Your task to perform on an android device: Show me recent news Image 0: 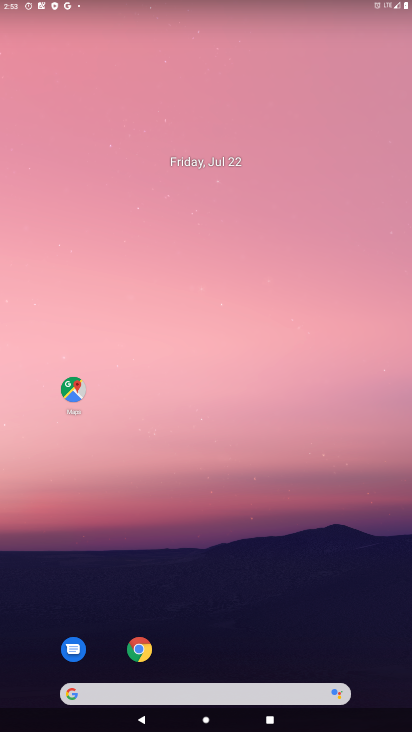
Step 0: drag from (236, 543) to (237, 68)
Your task to perform on an android device: Show me recent news Image 1: 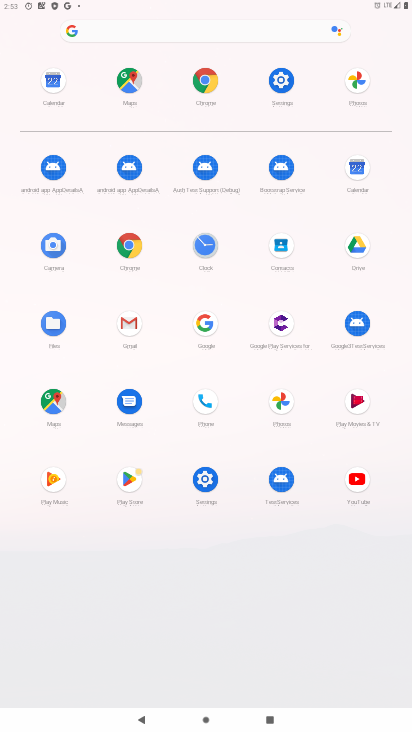
Step 1: click (206, 79)
Your task to perform on an android device: Show me recent news Image 2: 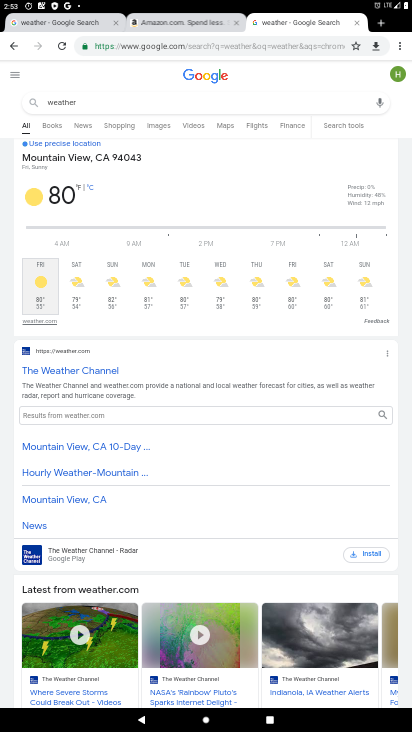
Step 2: click (252, 45)
Your task to perform on an android device: Show me recent news Image 3: 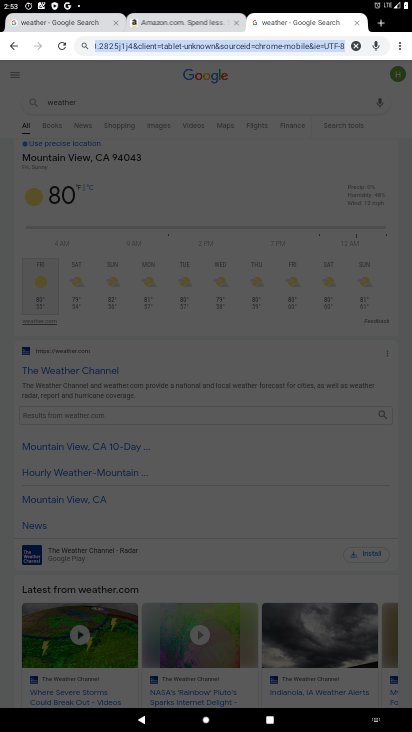
Step 3: type "news"
Your task to perform on an android device: Show me recent news Image 4: 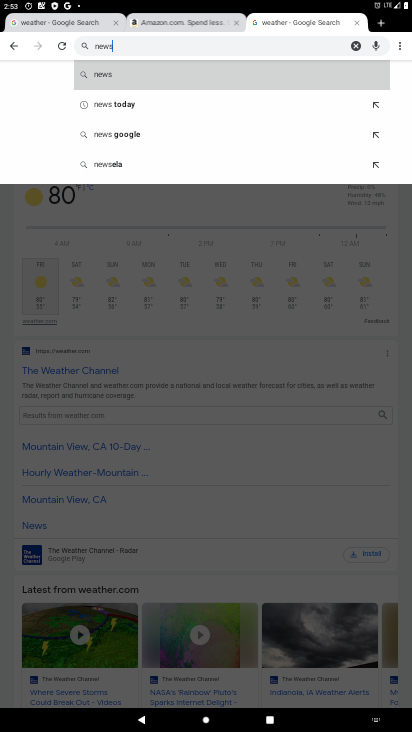
Step 4: click (116, 78)
Your task to perform on an android device: Show me recent news Image 5: 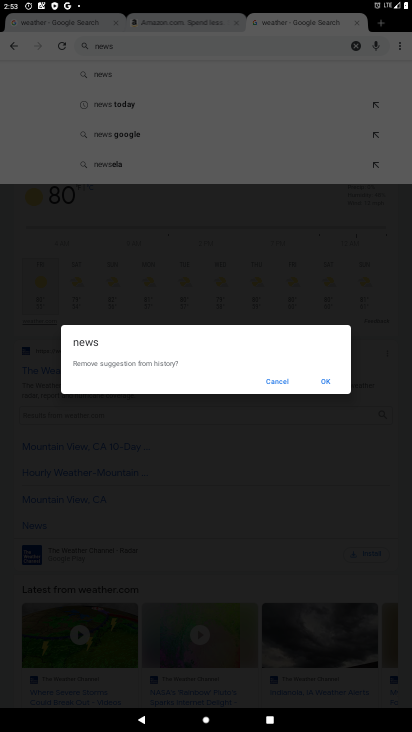
Step 5: click (264, 370)
Your task to perform on an android device: Show me recent news Image 6: 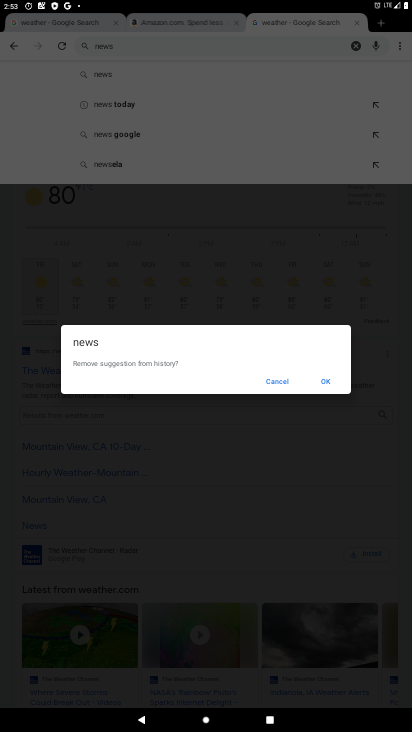
Step 6: click (278, 379)
Your task to perform on an android device: Show me recent news Image 7: 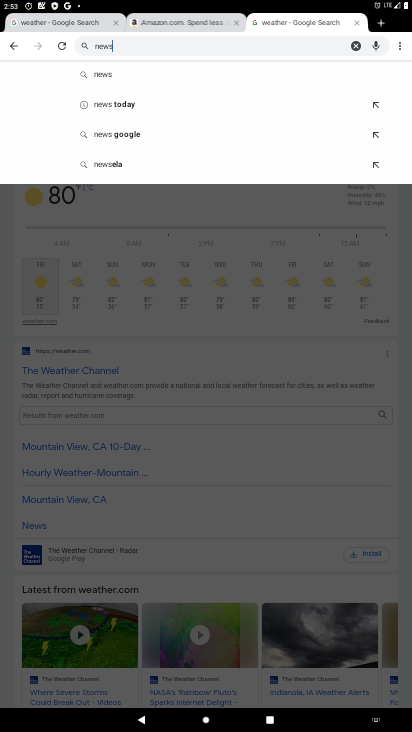
Step 7: click (105, 77)
Your task to perform on an android device: Show me recent news Image 8: 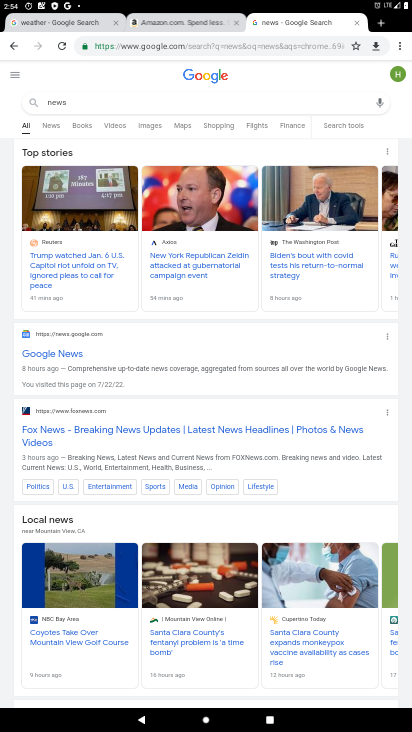
Step 8: click (57, 349)
Your task to perform on an android device: Show me recent news Image 9: 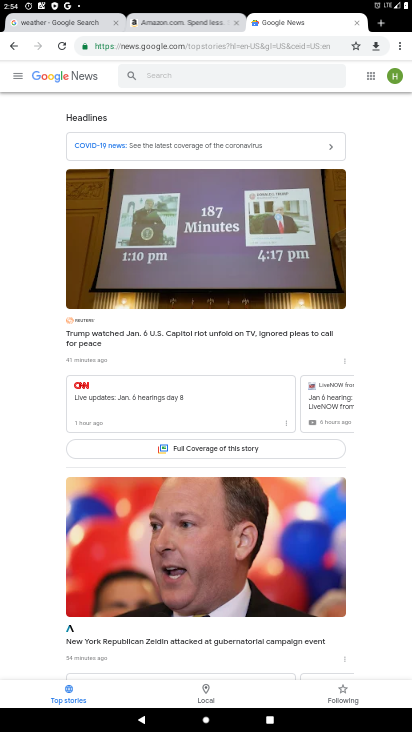
Step 9: task complete